Your task to perform on an android device: open app "Adobe Acrobat Reader" (install if not already installed) Image 0: 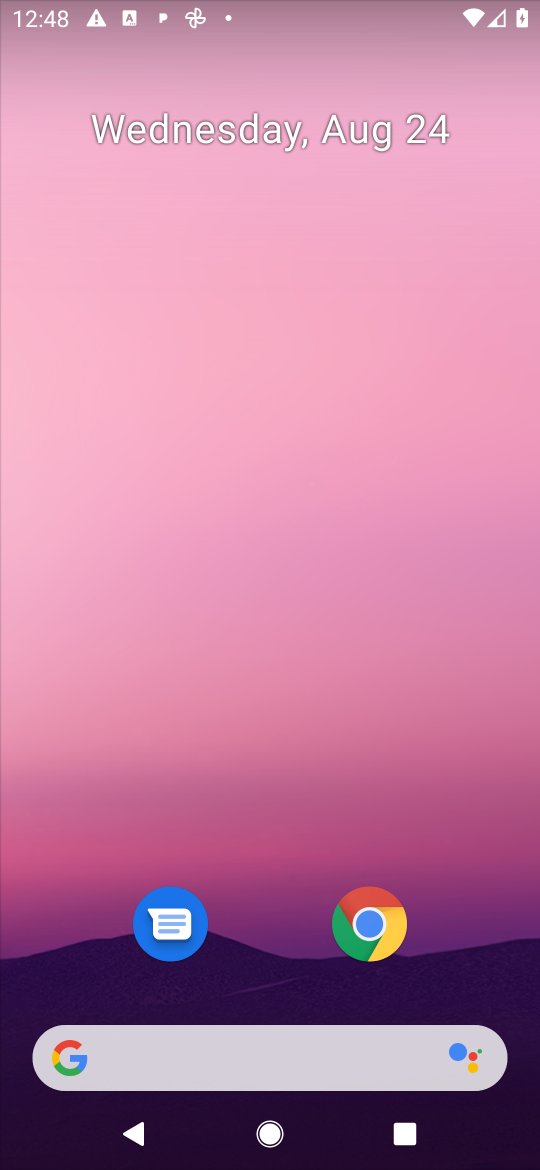
Step 0: press home button
Your task to perform on an android device: open app "Adobe Acrobat Reader" (install if not already installed) Image 1: 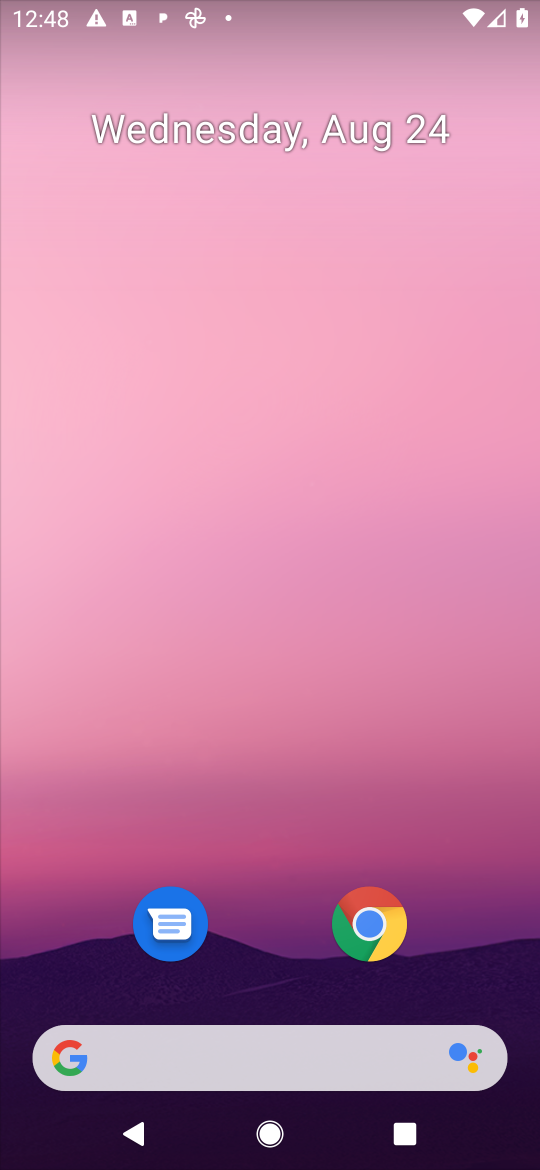
Step 1: drag from (453, 932) to (451, 109)
Your task to perform on an android device: open app "Adobe Acrobat Reader" (install if not already installed) Image 2: 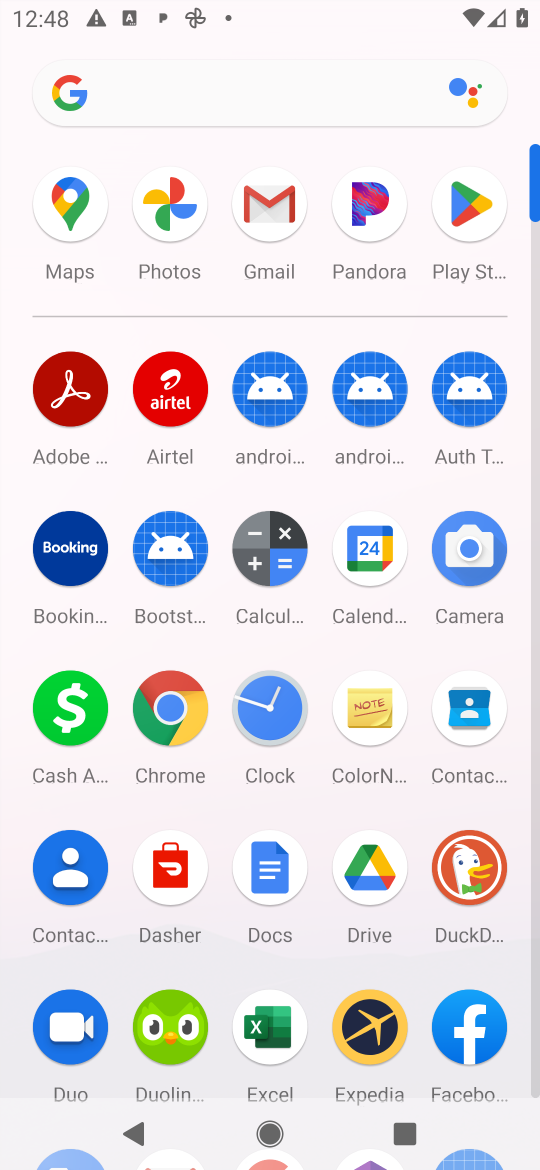
Step 2: click (470, 215)
Your task to perform on an android device: open app "Adobe Acrobat Reader" (install if not already installed) Image 3: 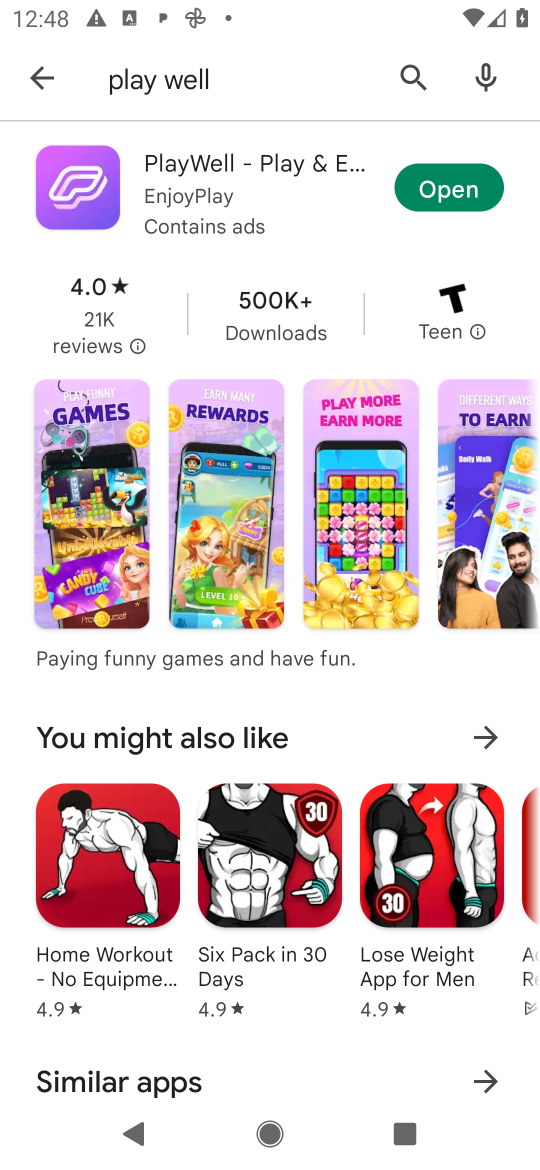
Step 3: press back button
Your task to perform on an android device: open app "Adobe Acrobat Reader" (install if not already installed) Image 4: 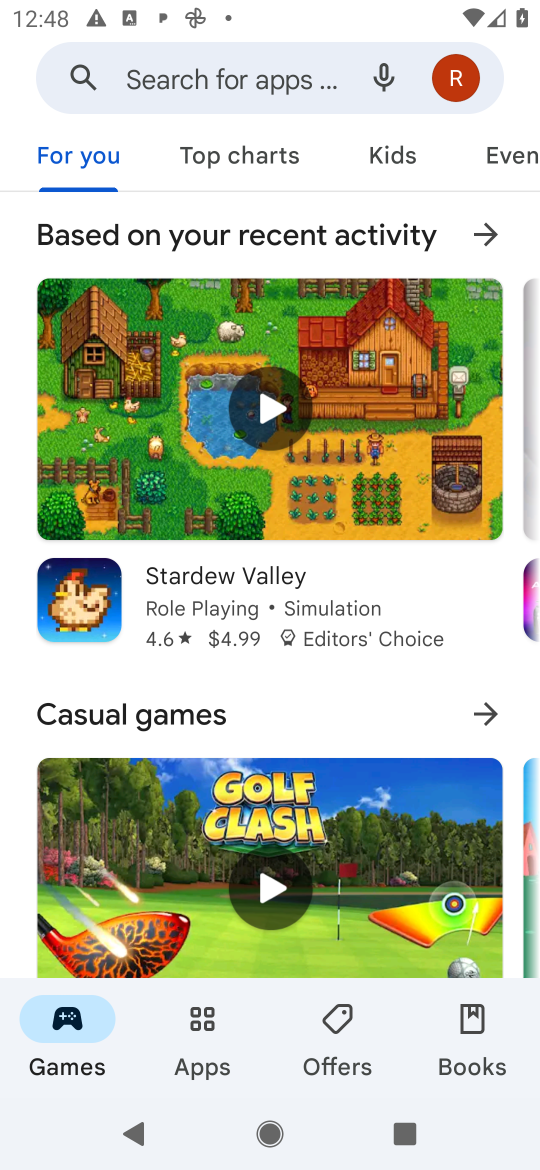
Step 4: click (247, 72)
Your task to perform on an android device: open app "Adobe Acrobat Reader" (install if not already installed) Image 5: 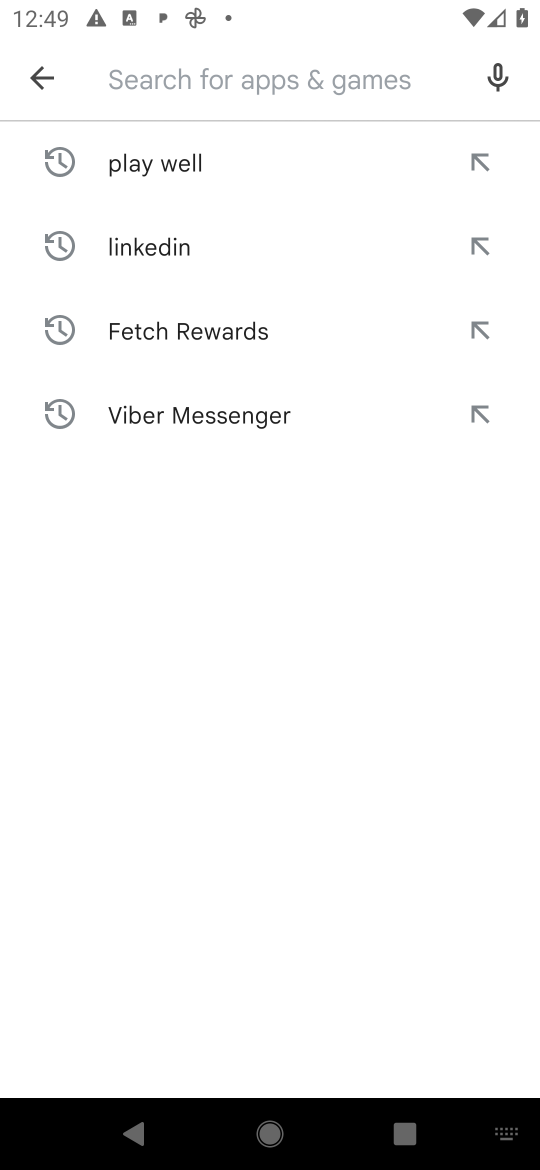
Step 5: type "Adobe Acrobat Reader"
Your task to perform on an android device: open app "Adobe Acrobat Reader" (install if not already installed) Image 6: 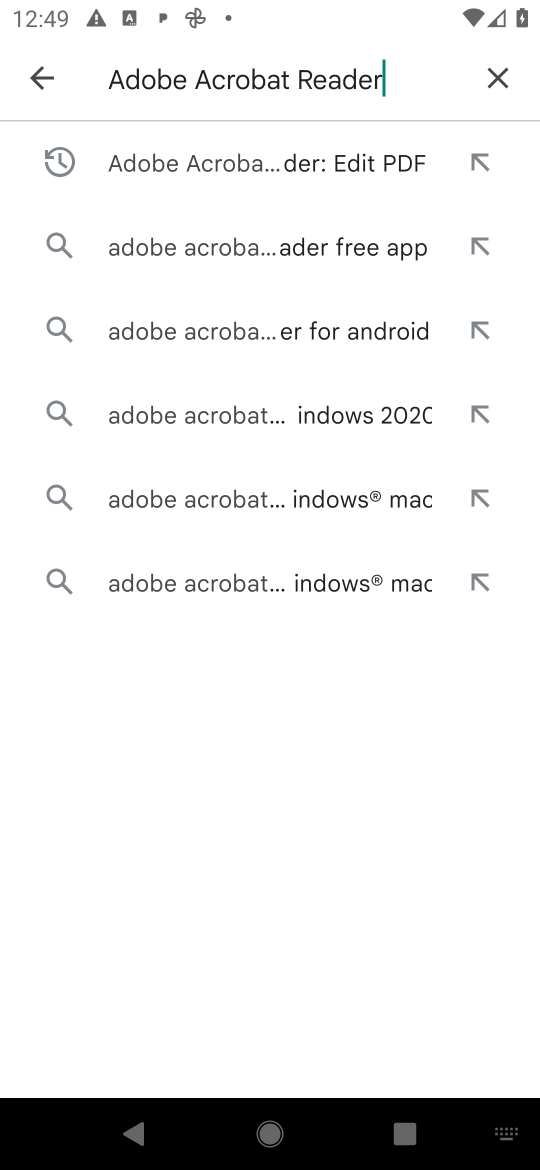
Step 6: press enter
Your task to perform on an android device: open app "Adobe Acrobat Reader" (install if not already installed) Image 7: 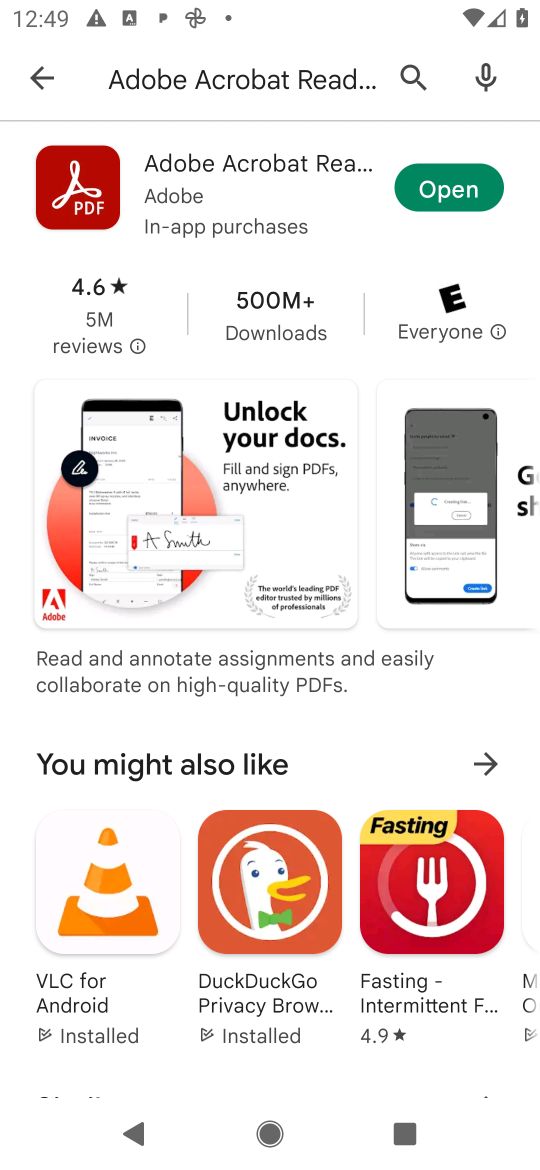
Step 7: click (456, 178)
Your task to perform on an android device: open app "Adobe Acrobat Reader" (install if not already installed) Image 8: 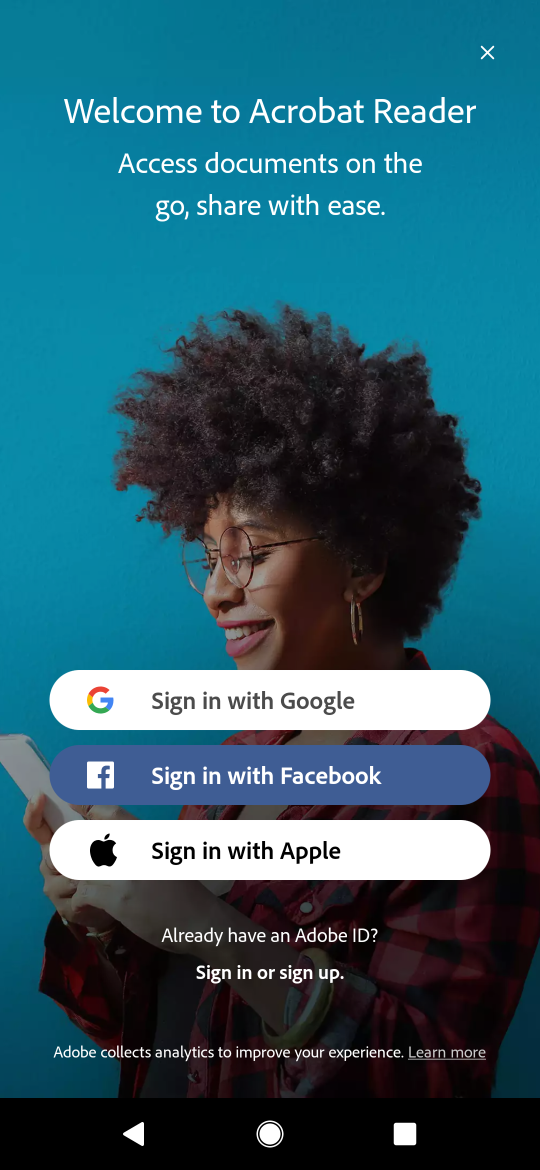
Step 8: task complete